Your task to perform on an android device: move an email to a new category in the gmail app Image 0: 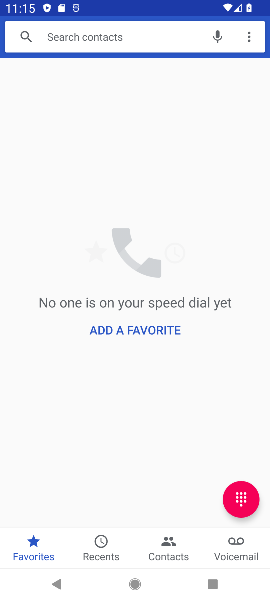
Step 0: press back button
Your task to perform on an android device: move an email to a new category in the gmail app Image 1: 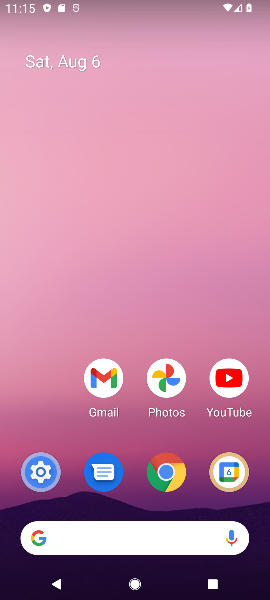
Step 1: drag from (159, 528) to (92, 236)
Your task to perform on an android device: move an email to a new category in the gmail app Image 2: 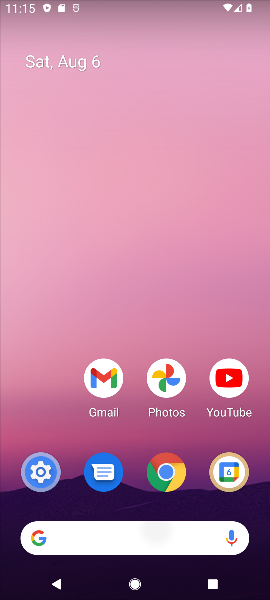
Step 2: drag from (147, 448) to (91, 167)
Your task to perform on an android device: move an email to a new category in the gmail app Image 3: 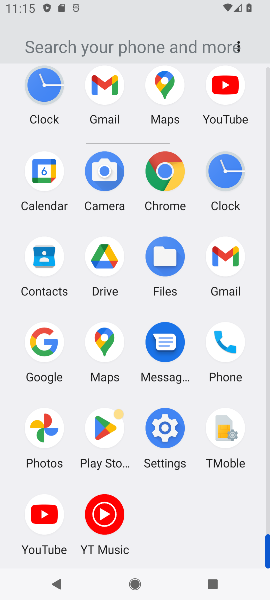
Step 3: drag from (137, 454) to (128, 199)
Your task to perform on an android device: move an email to a new category in the gmail app Image 4: 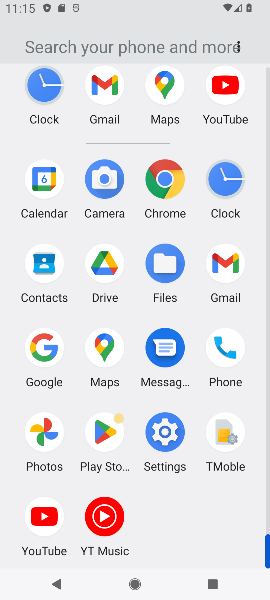
Step 4: click (168, 437)
Your task to perform on an android device: move an email to a new category in the gmail app Image 5: 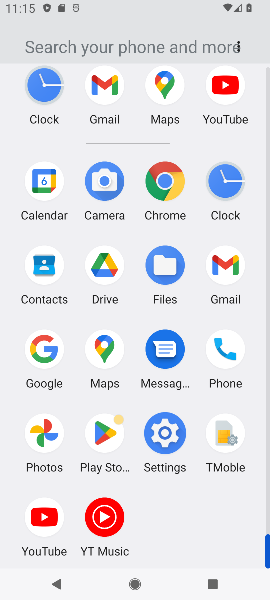
Step 5: click (168, 437)
Your task to perform on an android device: move an email to a new category in the gmail app Image 6: 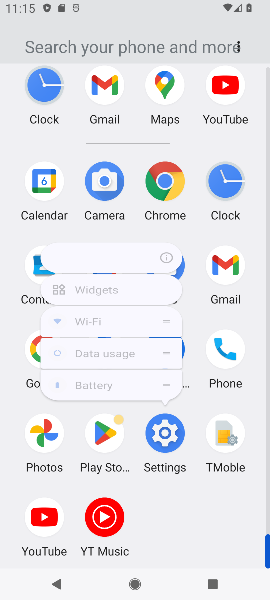
Step 6: click (167, 436)
Your task to perform on an android device: move an email to a new category in the gmail app Image 7: 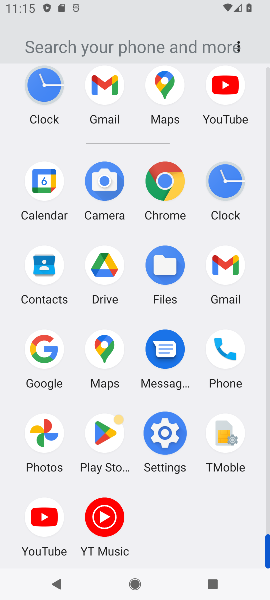
Step 7: click (167, 436)
Your task to perform on an android device: move an email to a new category in the gmail app Image 8: 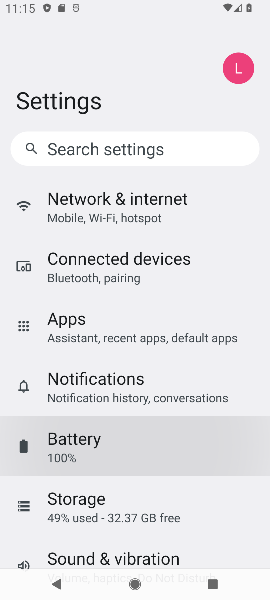
Step 8: click (167, 436)
Your task to perform on an android device: move an email to a new category in the gmail app Image 9: 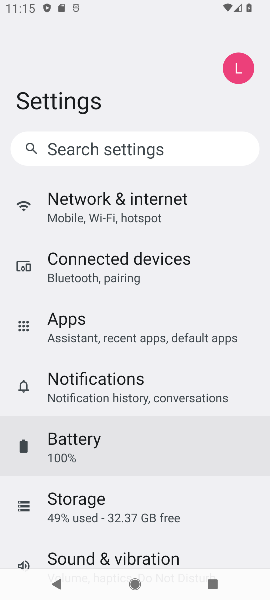
Step 9: click (167, 436)
Your task to perform on an android device: move an email to a new category in the gmail app Image 10: 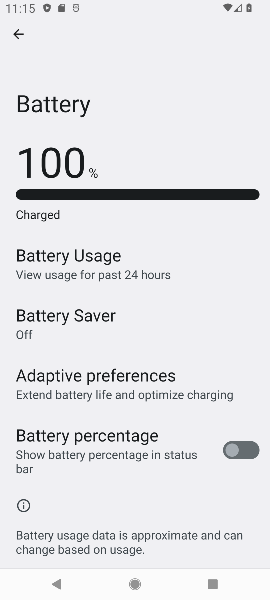
Step 10: press back button
Your task to perform on an android device: move an email to a new category in the gmail app Image 11: 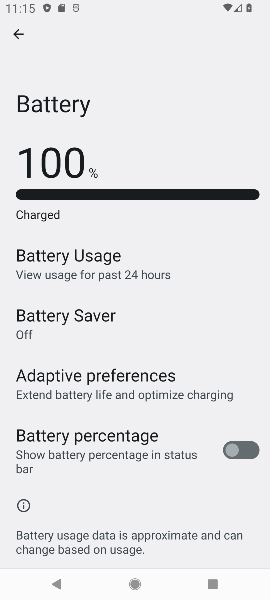
Step 11: press back button
Your task to perform on an android device: move an email to a new category in the gmail app Image 12: 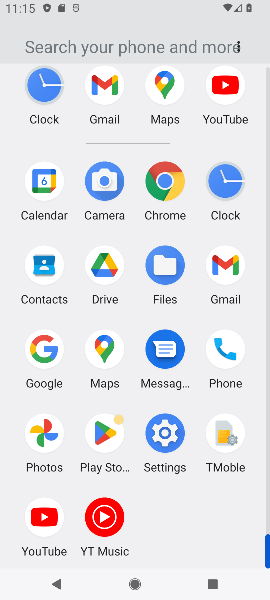
Step 12: click (218, 266)
Your task to perform on an android device: move an email to a new category in the gmail app Image 13: 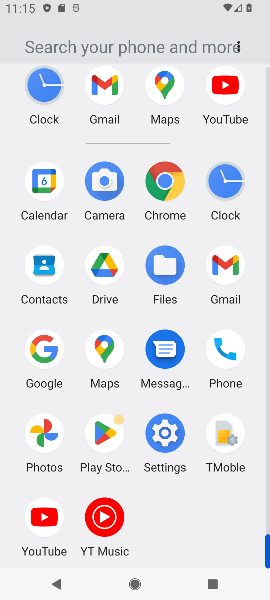
Step 13: click (218, 266)
Your task to perform on an android device: move an email to a new category in the gmail app Image 14: 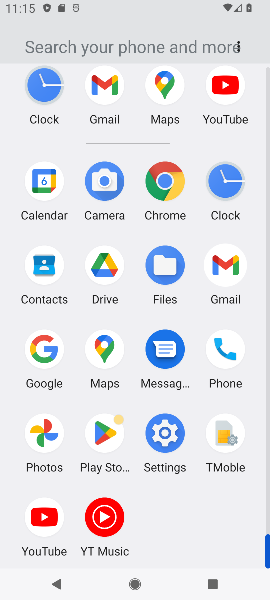
Step 14: click (218, 266)
Your task to perform on an android device: move an email to a new category in the gmail app Image 15: 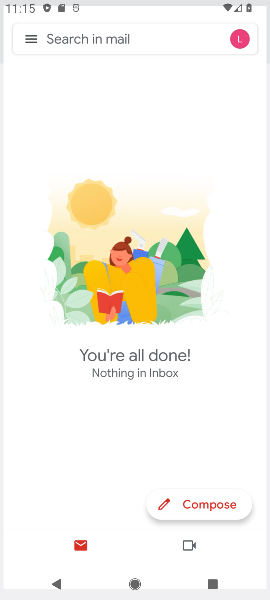
Step 15: click (218, 266)
Your task to perform on an android device: move an email to a new category in the gmail app Image 16: 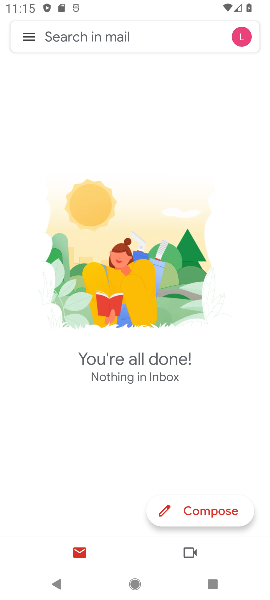
Step 16: click (25, 32)
Your task to perform on an android device: move an email to a new category in the gmail app Image 17: 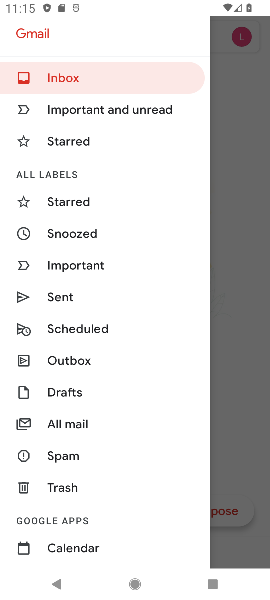
Step 17: click (65, 414)
Your task to perform on an android device: move an email to a new category in the gmail app Image 18: 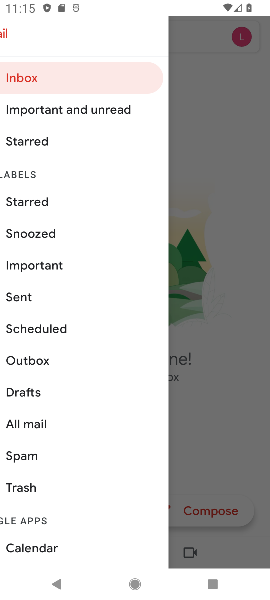
Step 18: click (66, 422)
Your task to perform on an android device: move an email to a new category in the gmail app Image 19: 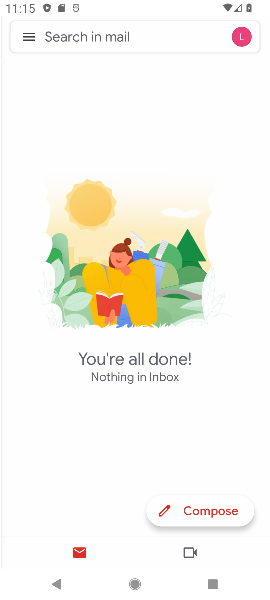
Step 19: click (64, 430)
Your task to perform on an android device: move an email to a new category in the gmail app Image 20: 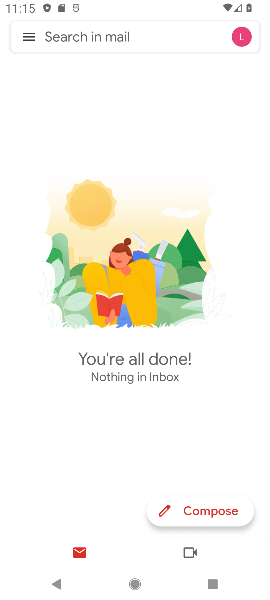
Step 20: click (65, 424)
Your task to perform on an android device: move an email to a new category in the gmail app Image 21: 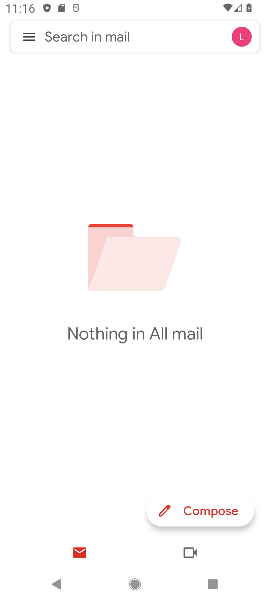
Step 21: task complete